Your task to perform on an android device: Open Google Chrome and open the bookmarks view Image 0: 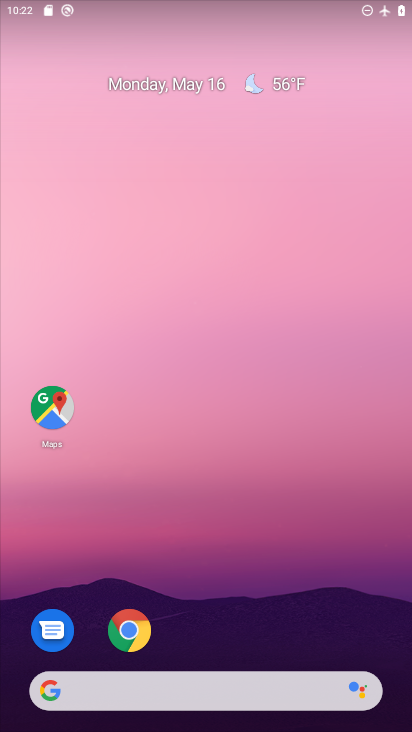
Step 0: click (142, 628)
Your task to perform on an android device: Open Google Chrome and open the bookmarks view Image 1: 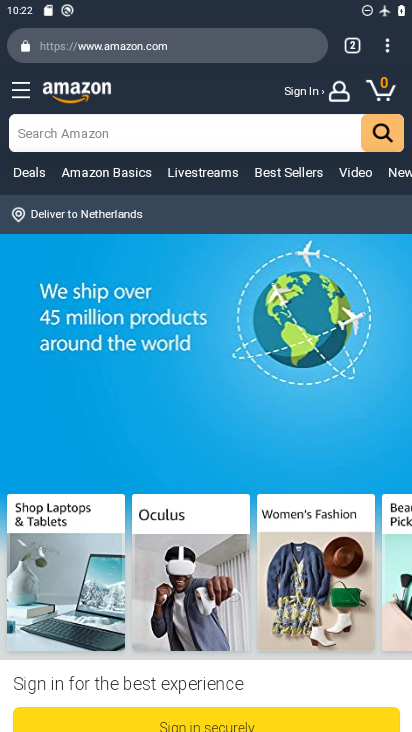
Step 1: click (391, 46)
Your task to perform on an android device: Open Google Chrome and open the bookmarks view Image 2: 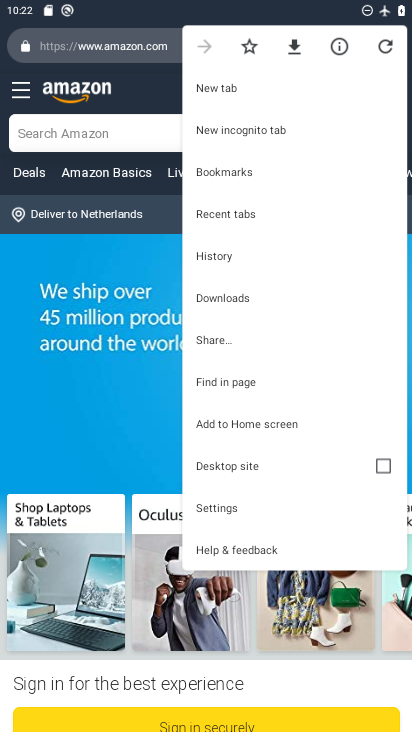
Step 2: click (232, 173)
Your task to perform on an android device: Open Google Chrome and open the bookmarks view Image 3: 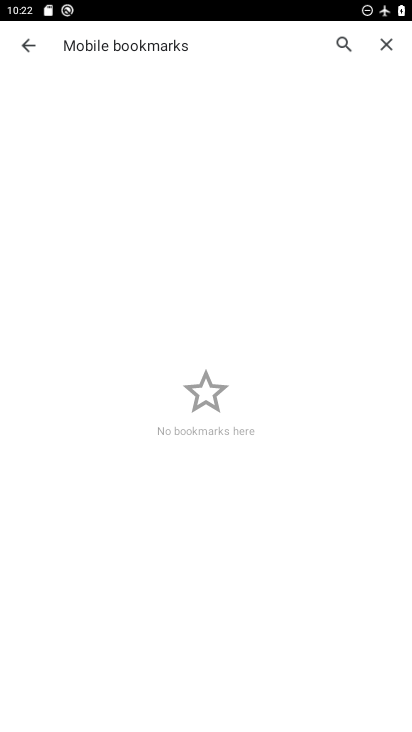
Step 3: task complete